Your task to perform on an android device: change the clock display to show seconds Image 0: 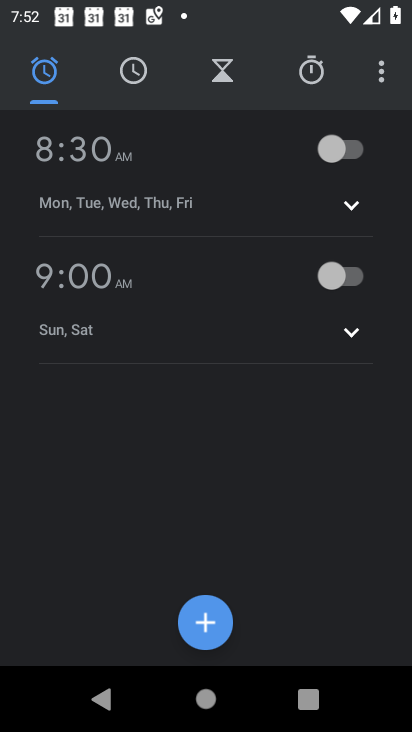
Step 0: press home button
Your task to perform on an android device: change the clock display to show seconds Image 1: 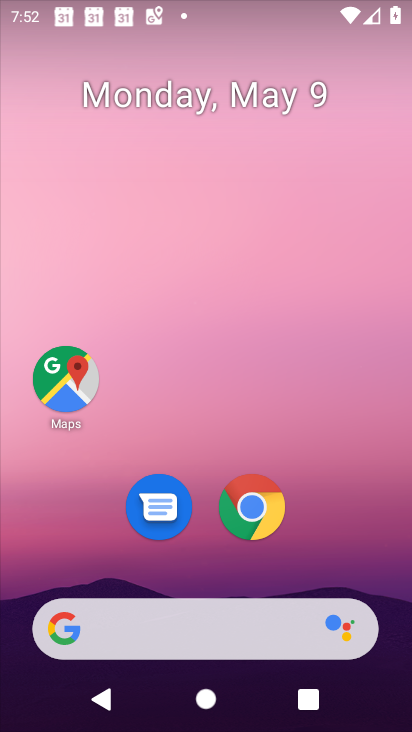
Step 1: drag from (276, 656) to (300, 154)
Your task to perform on an android device: change the clock display to show seconds Image 2: 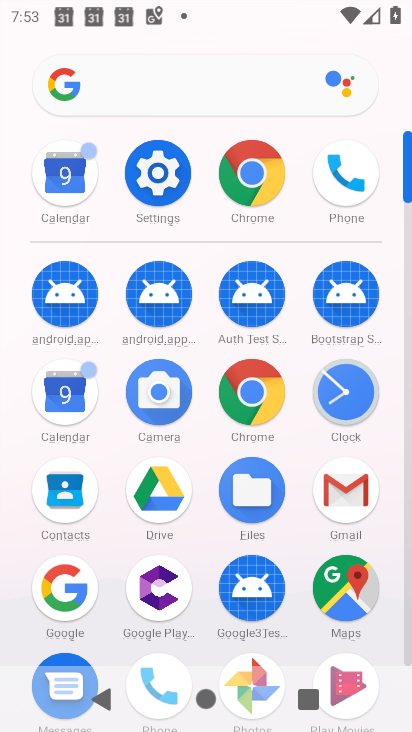
Step 2: click (160, 171)
Your task to perform on an android device: change the clock display to show seconds Image 3: 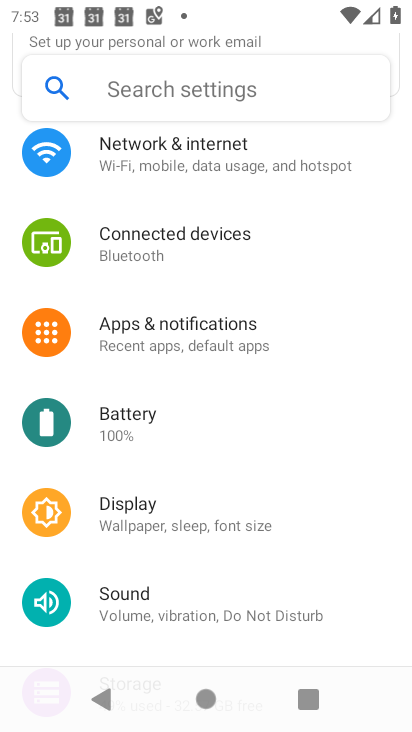
Step 3: press home button
Your task to perform on an android device: change the clock display to show seconds Image 4: 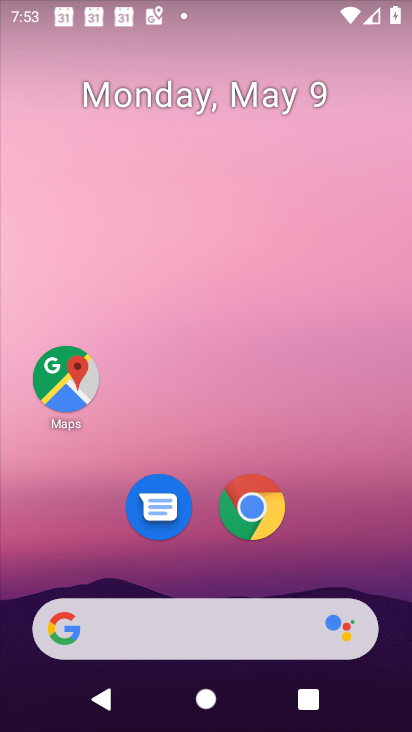
Step 4: drag from (264, 664) to (387, 149)
Your task to perform on an android device: change the clock display to show seconds Image 5: 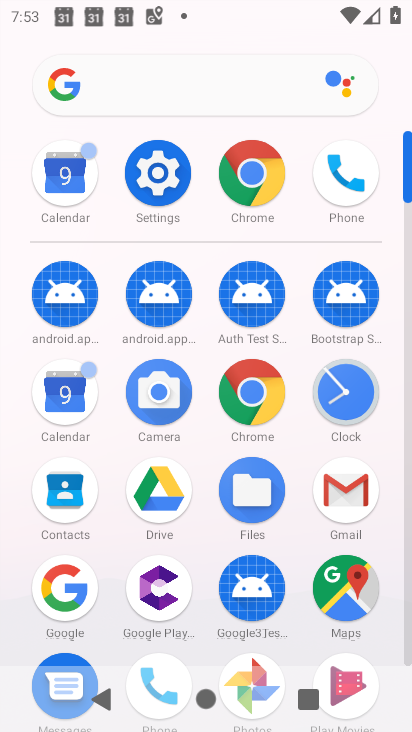
Step 5: click (333, 392)
Your task to perform on an android device: change the clock display to show seconds Image 6: 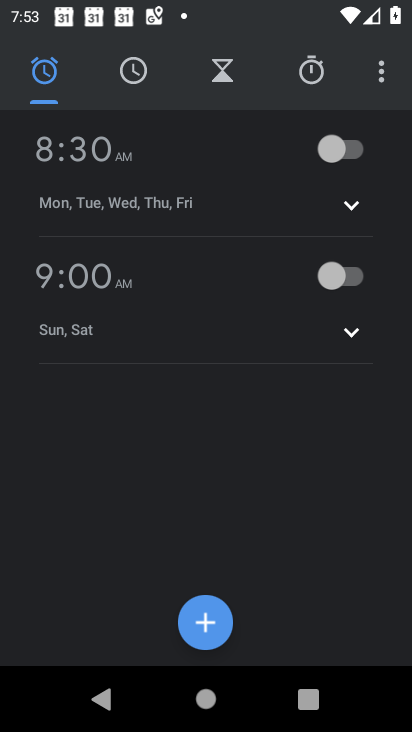
Step 6: click (388, 78)
Your task to perform on an android device: change the clock display to show seconds Image 7: 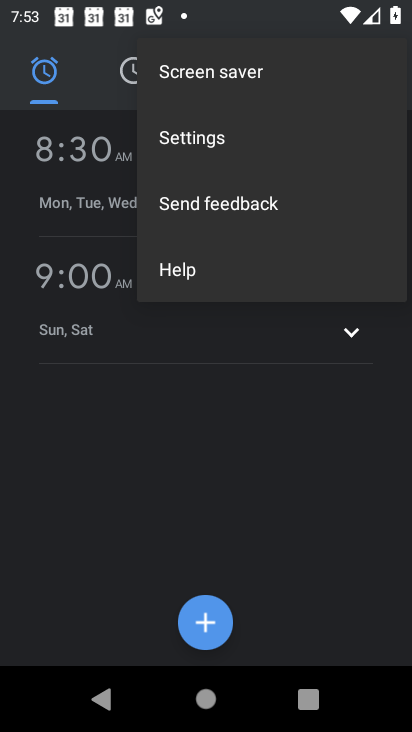
Step 7: click (270, 149)
Your task to perform on an android device: change the clock display to show seconds Image 8: 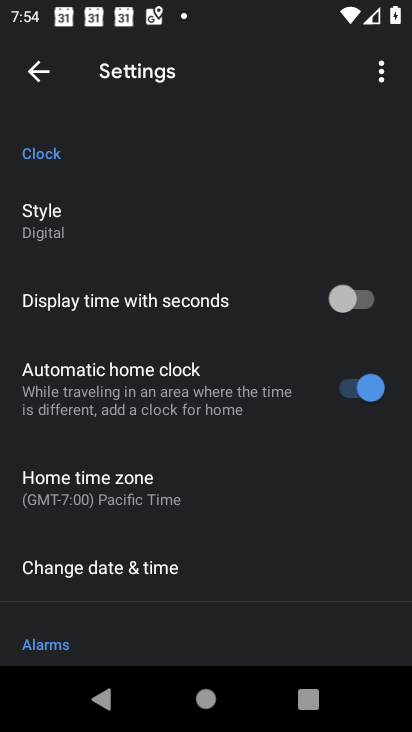
Step 8: click (326, 307)
Your task to perform on an android device: change the clock display to show seconds Image 9: 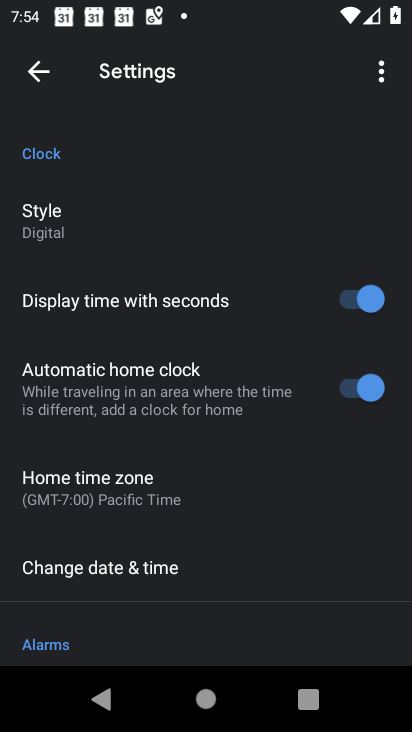
Step 9: task complete